Your task to perform on an android device: change the clock display to analog Image 0: 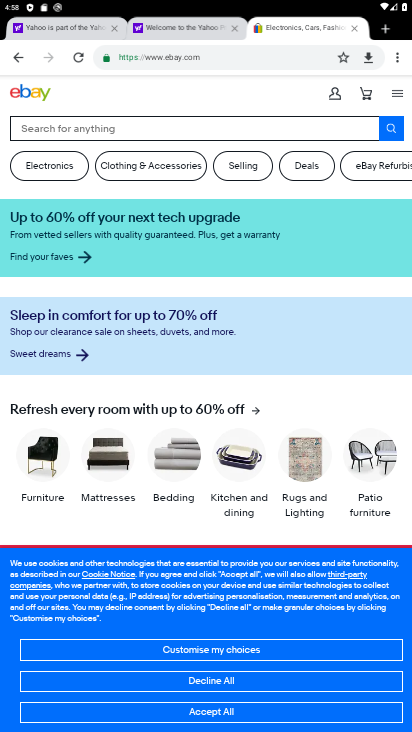
Step 0: press home button
Your task to perform on an android device: change the clock display to analog Image 1: 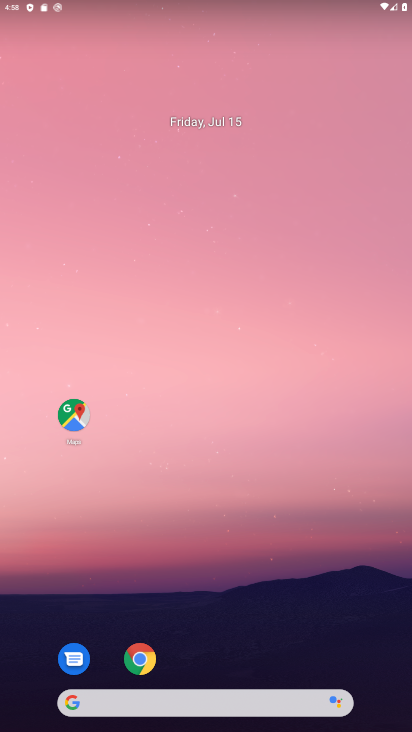
Step 1: drag from (196, 626) to (271, 81)
Your task to perform on an android device: change the clock display to analog Image 2: 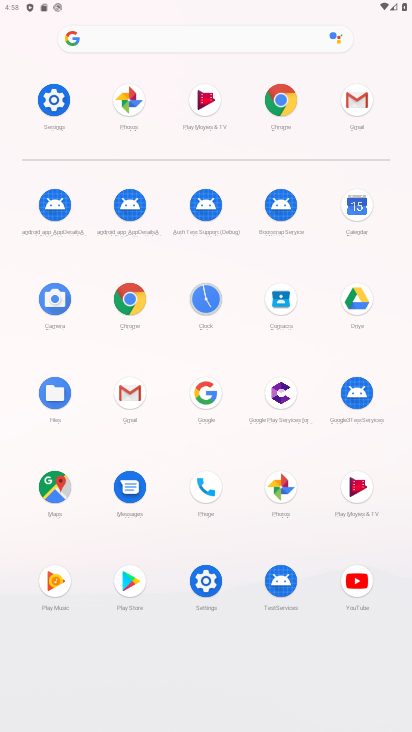
Step 2: click (206, 290)
Your task to perform on an android device: change the clock display to analog Image 3: 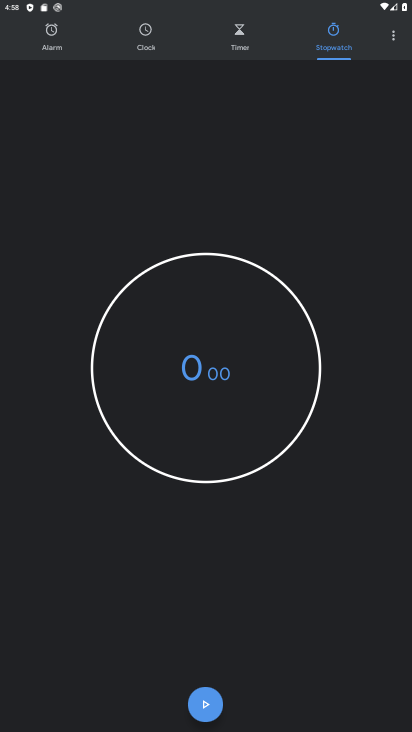
Step 3: click (405, 36)
Your task to perform on an android device: change the clock display to analog Image 4: 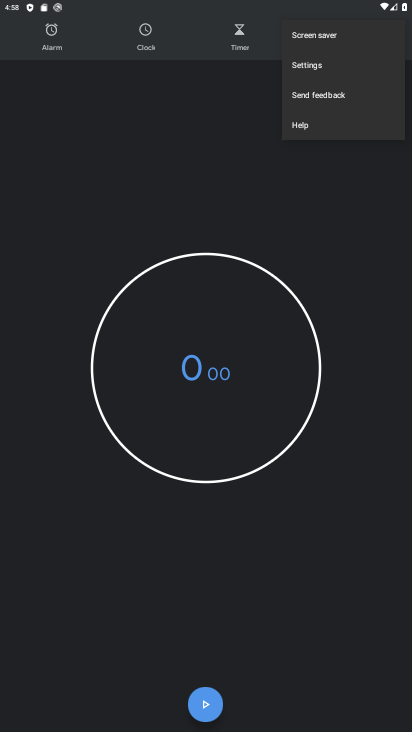
Step 4: click (334, 65)
Your task to perform on an android device: change the clock display to analog Image 5: 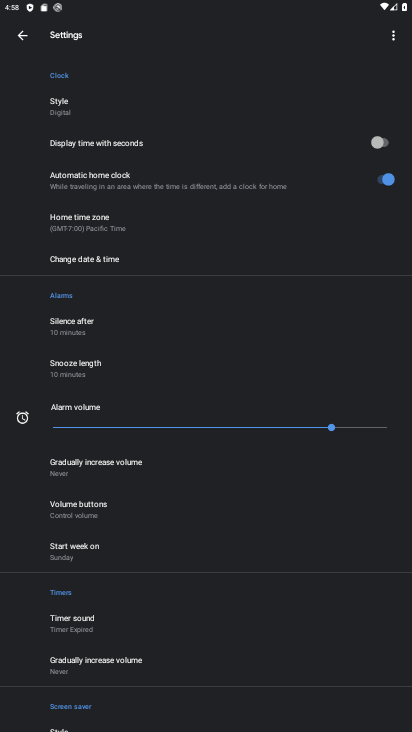
Step 5: click (79, 103)
Your task to perform on an android device: change the clock display to analog Image 6: 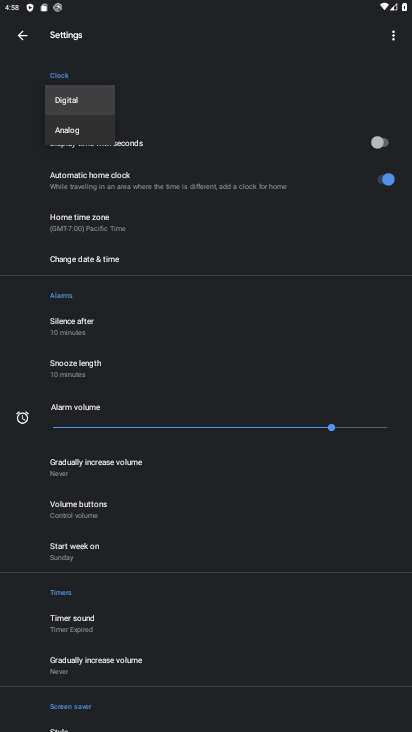
Step 6: click (84, 127)
Your task to perform on an android device: change the clock display to analog Image 7: 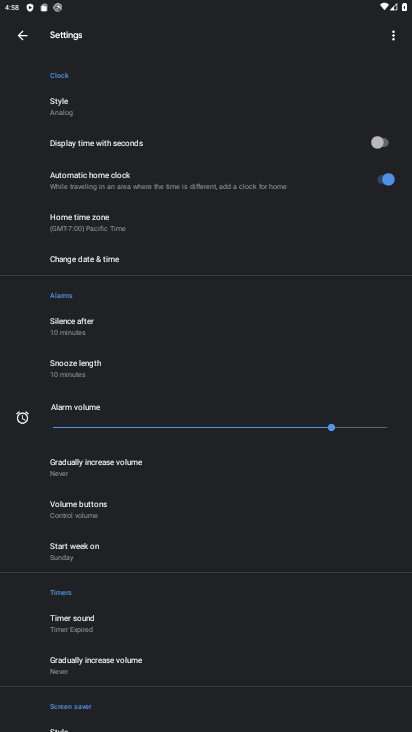
Step 7: task complete